Your task to perform on an android device: all mails in gmail Image 0: 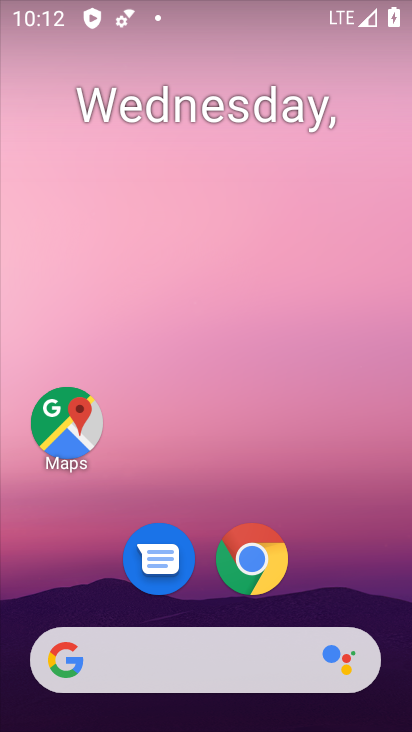
Step 0: drag from (366, 523) to (204, 21)
Your task to perform on an android device: all mails in gmail Image 1: 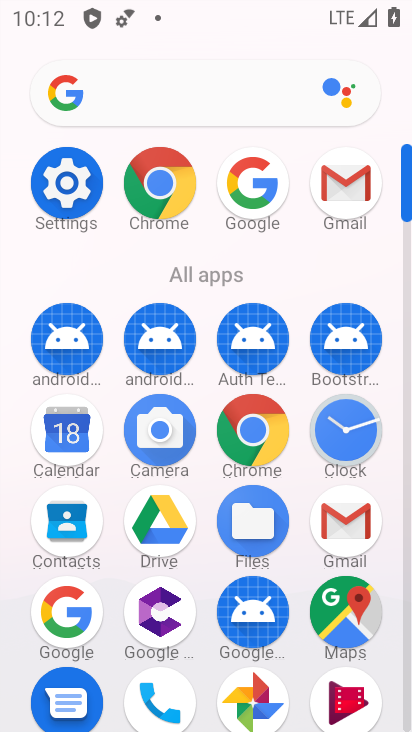
Step 1: click (323, 189)
Your task to perform on an android device: all mails in gmail Image 2: 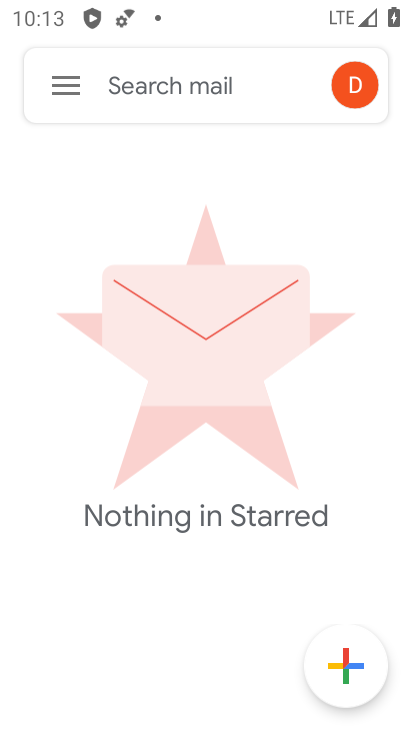
Step 2: click (57, 79)
Your task to perform on an android device: all mails in gmail Image 3: 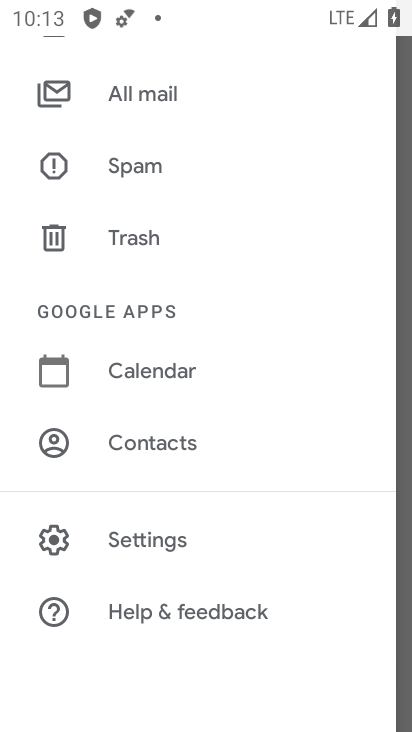
Step 3: click (142, 86)
Your task to perform on an android device: all mails in gmail Image 4: 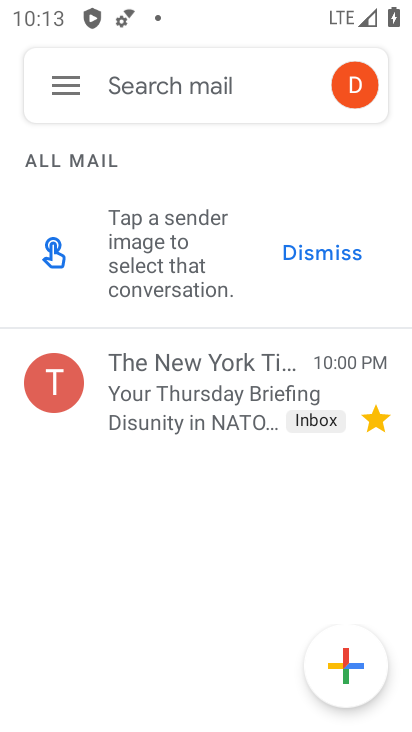
Step 4: task complete